Your task to perform on an android device: turn on sleep mode Image 0: 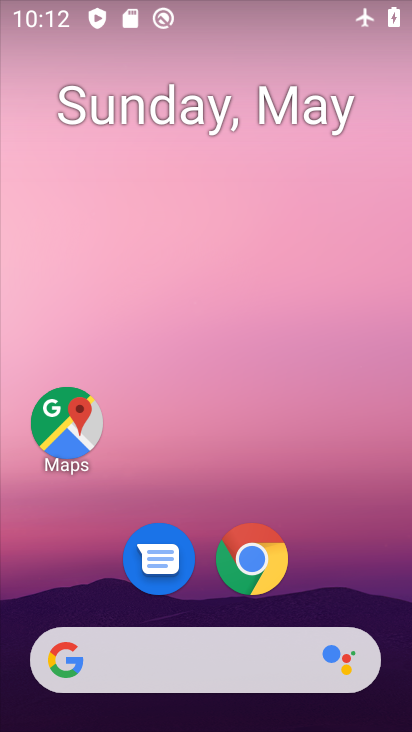
Step 0: drag from (351, 568) to (349, 4)
Your task to perform on an android device: turn on sleep mode Image 1: 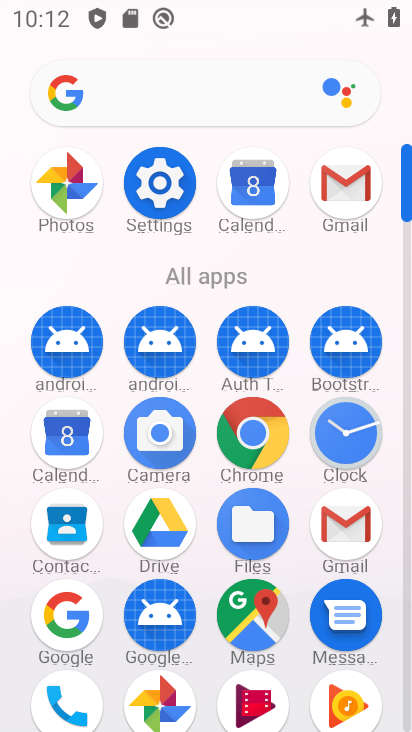
Step 1: click (142, 162)
Your task to perform on an android device: turn on sleep mode Image 2: 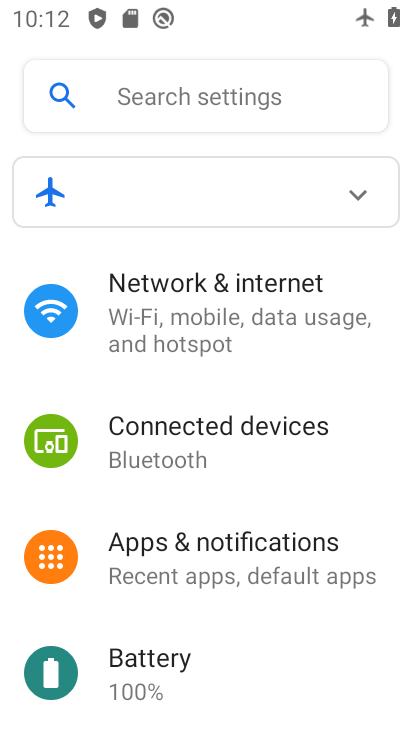
Step 2: drag from (295, 615) to (298, 194)
Your task to perform on an android device: turn on sleep mode Image 3: 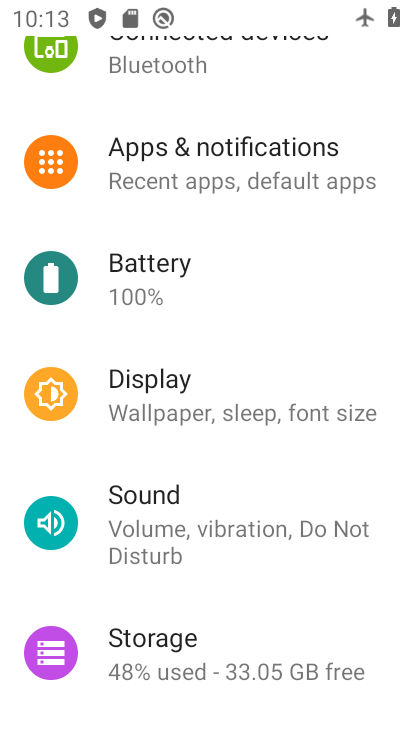
Step 3: drag from (212, 625) to (195, 310)
Your task to perform on an android device: turn on sleep mode Image 4: 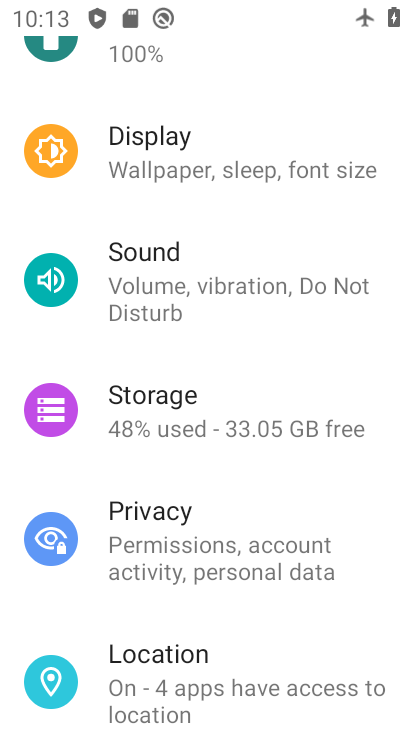
Step 4: click (193, 179)
Your task to perform on an android device: turn on sleep mode Image 5: 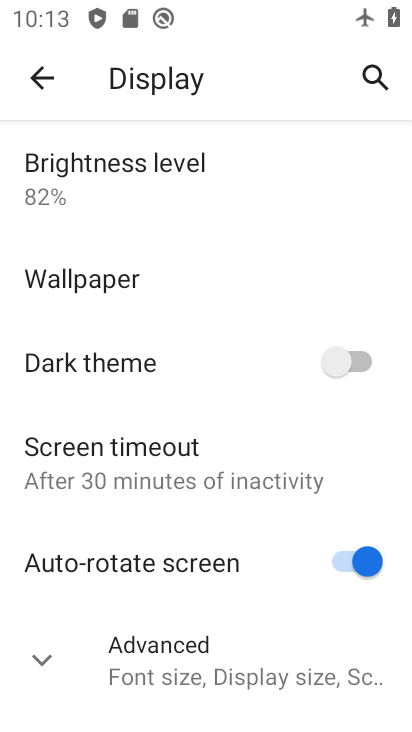
Step 5: task complete